Your task to perform on an android device: Check the news Image 0: 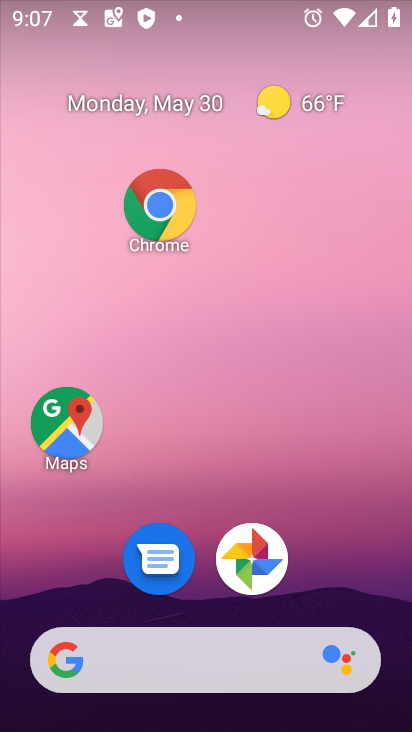
Step 0: drag from (257, 727) to (186, 548)
Your task to perform on an android device: Check the news Image 1: 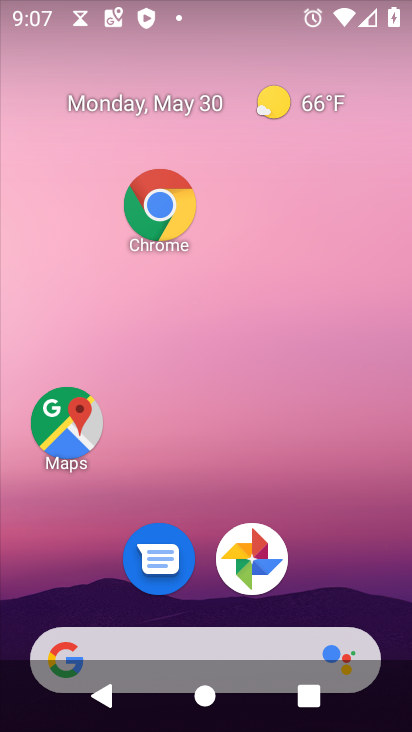
Step 1: task complete